Your task to perform on an android device: Search for seafood restaurants on Google Maps Image 0: 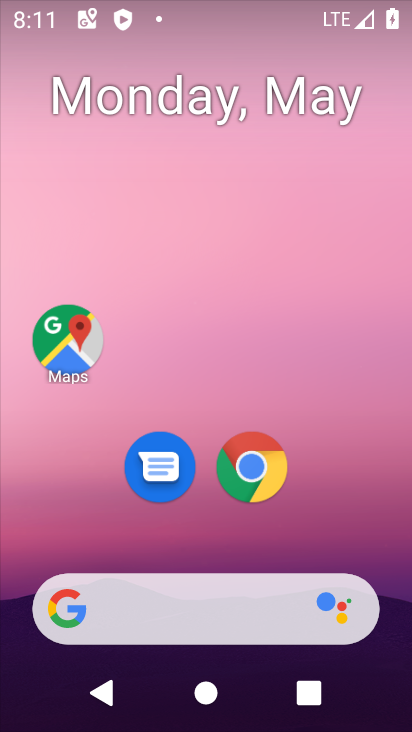
Step 0: click (82, 343)
Your task to perform on an android device: Search for seafood restaurants on Google Maps Image 1: 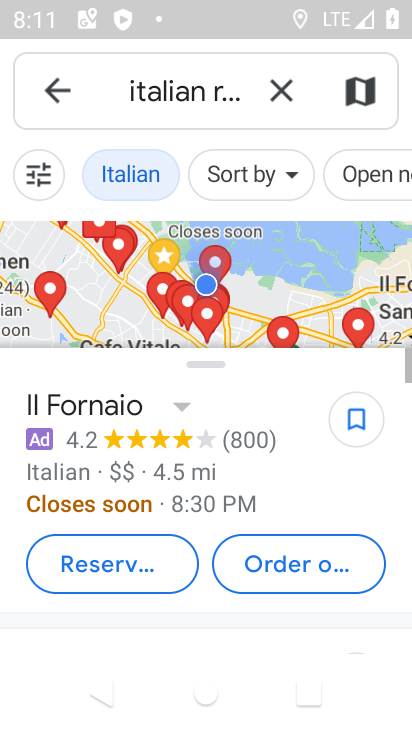
Step 1: click (293, 93)
Your task to perform on an android device: Search for seafood restaurants on Google Maps Image 2: 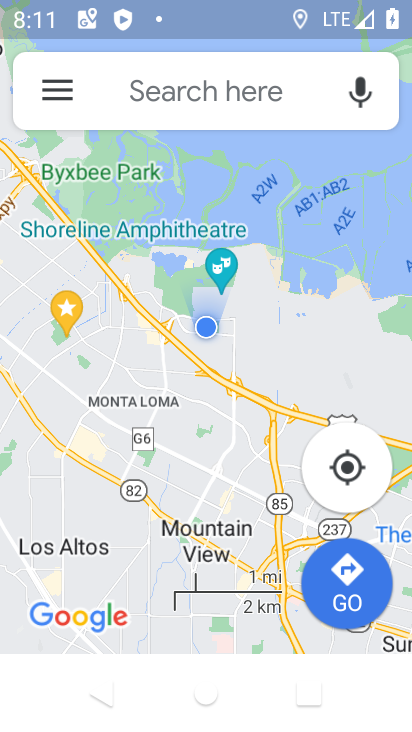
Step 2: click (225, 83)
Your task to perform on an android device: Search for seafood restaurants on Google Maps Image 3: 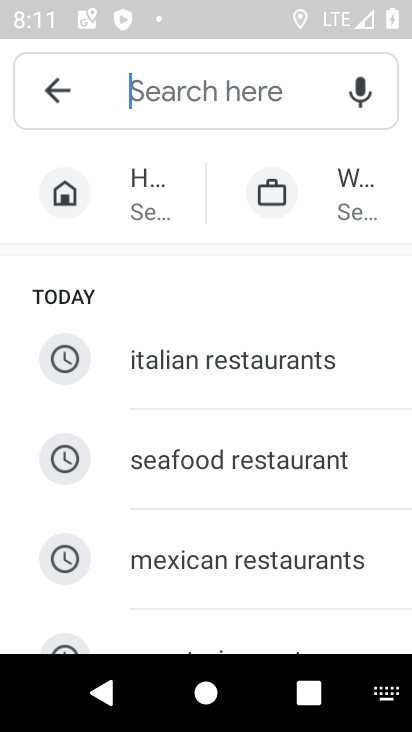
Step 3: click (294, 445)
Your task to perform on an android device: Search for seafood restaurants on Google Maps Image 4: 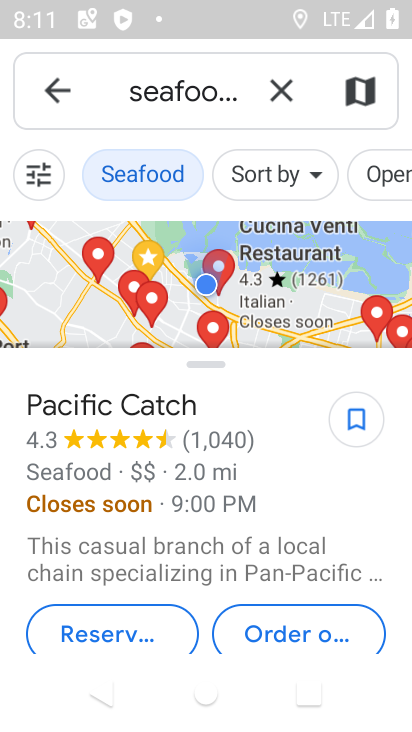
Step 4: task complete